Your task to perform on an android device: find which apps use the phone's location Image 0: 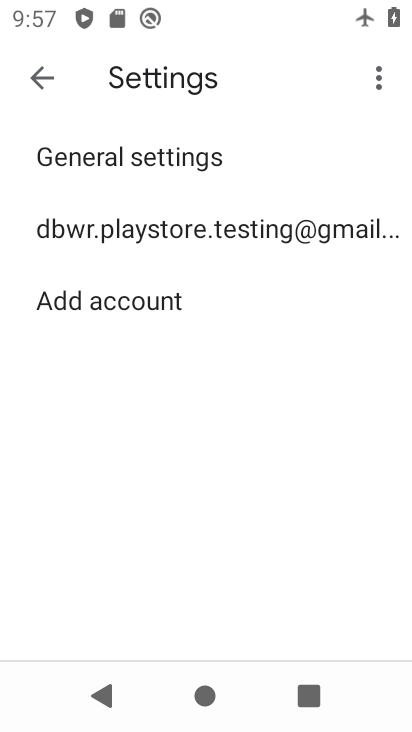
Step 0: drag from (238, 720) to (210, 152)
Your task to perform on an android device: find which apps use the phone's location Image 1: 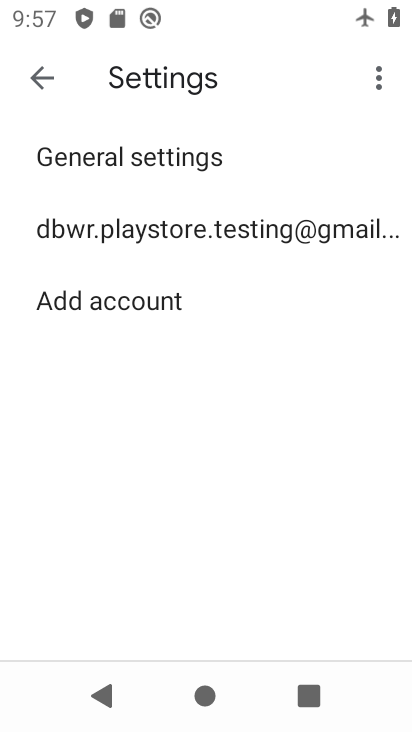
Step 1: press home button
Your task to perform on an android device: find which apps use the phone's location Image 2: 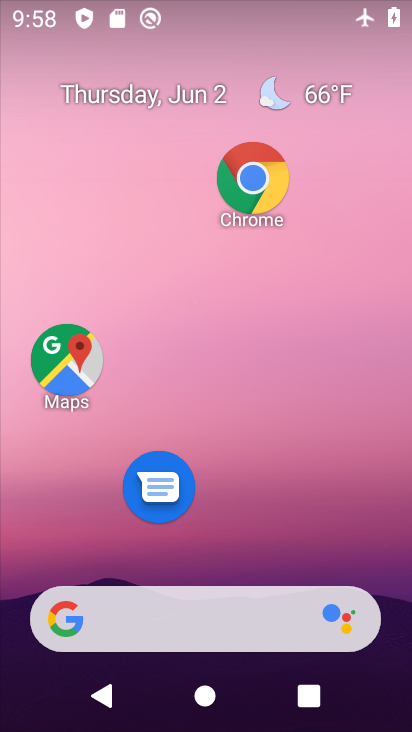
Step 2: drag from (243, 730) to (229, 168)
Your task to perform on an android device: find which apps use the phone's location Image 3: 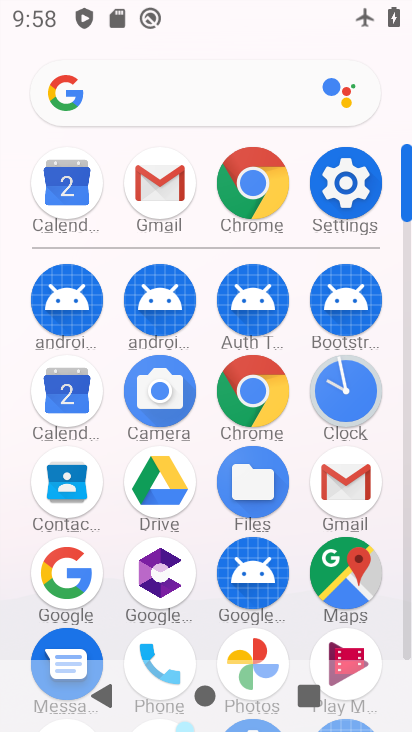
Step 3: drag from (291, 617) to (294, 257)
Your task to perform on an android device: find which apps use the phone's location Image 4: 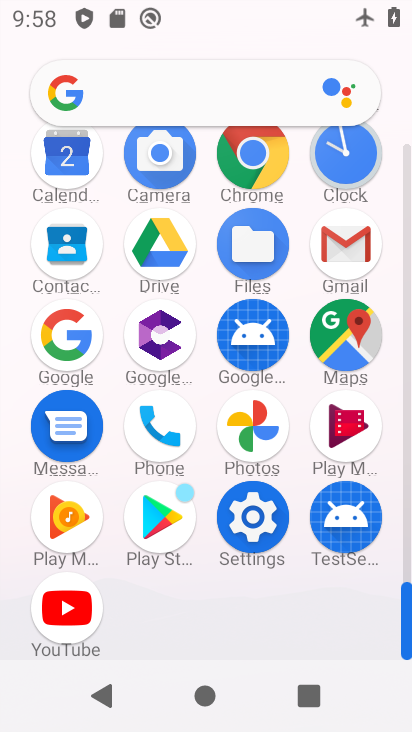
Step 4: click (257, 513)
Your task to perform on an android device: find which apps use the phone's location Image 5: 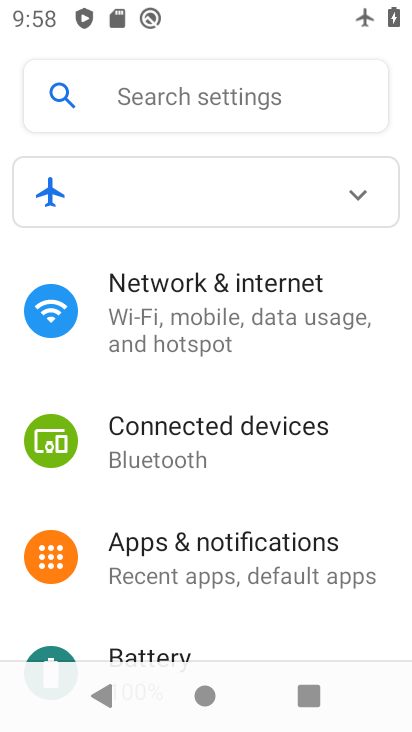
Step 5: drag from (201, 636) to (214, 311)
Your task to perform on an android device: find which apps use the phone's location Image 6: 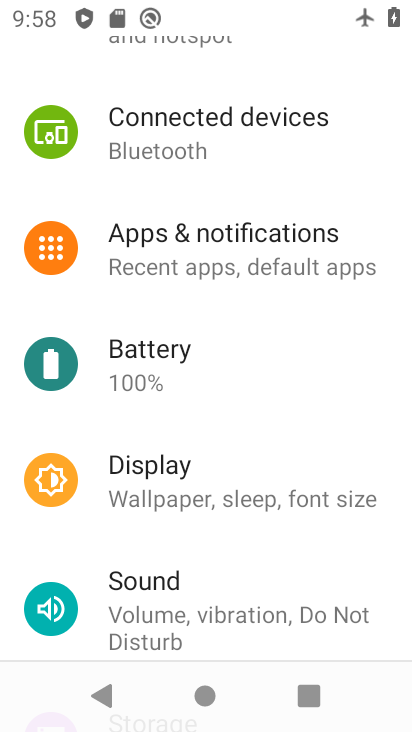
Step 6: drag from (201, 637) to (209, 338)
Your task to perform on an android device: find which apps use the phone's location Image 7: 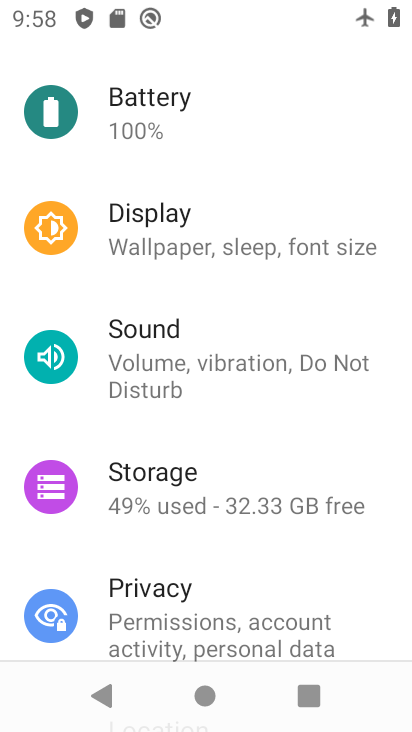
Step 7: drag from (206, 641) to (212, 268)
Your task to perform on an android device: find which apps use the phone's location Image 8: 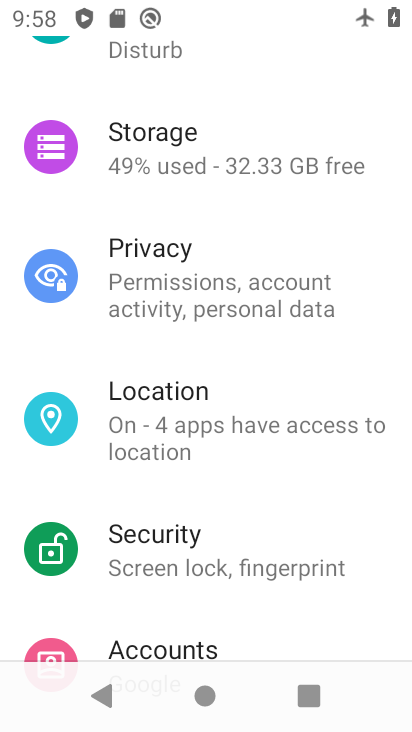
Step 8: click (145, 420)
Your task to perform on an android device: find which apps use the phone's location Image 9: 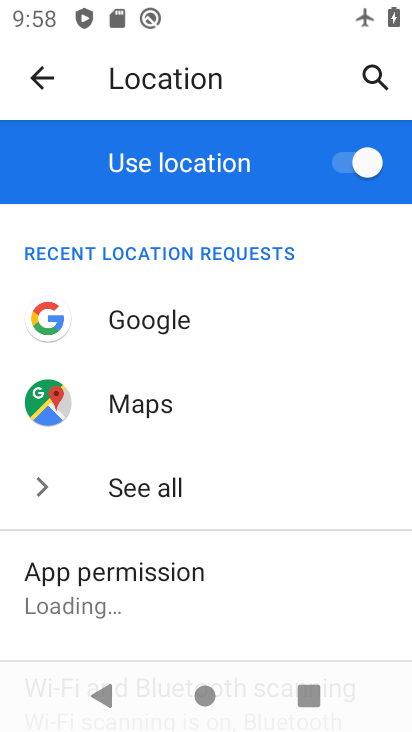
Step 9: drag from (228, 640) to (239, 320)
Your task to perform on an android device: find which apps use the phone's location Image 10: 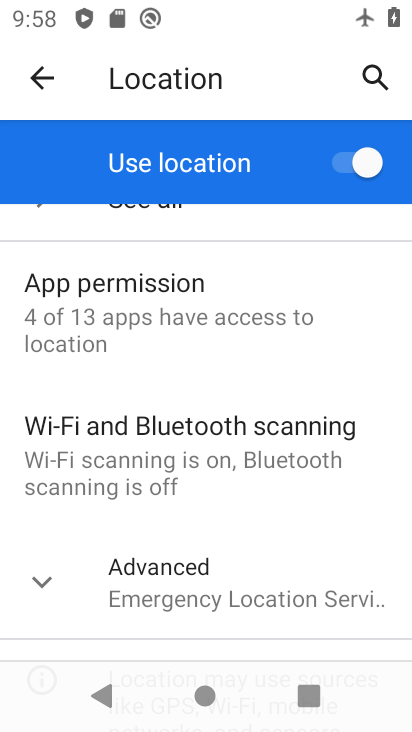
Step 10: click (134, 290)
Your task to perform on an android device: find which apps use the phone's location Image 11: 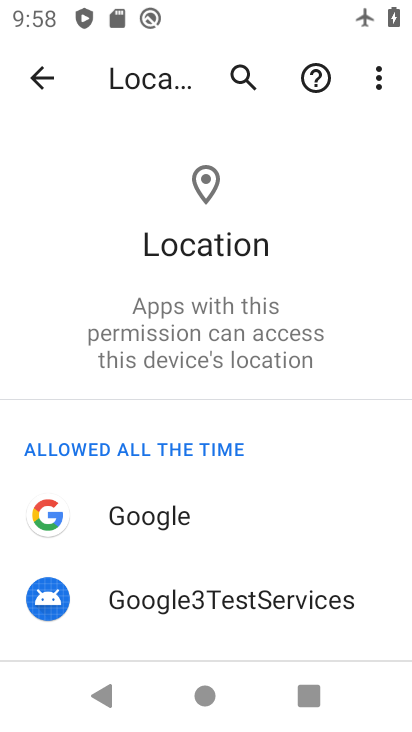
Step 11: task complete